Your task to perform on an android device: turn off improve location accuracy Image 0: 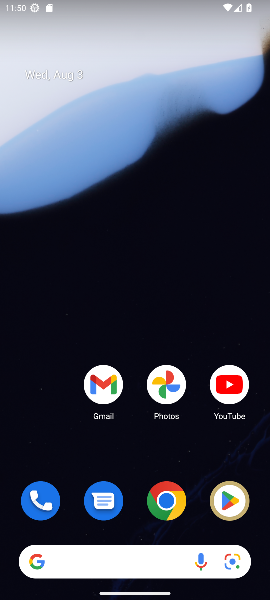
Step 0: drag from (112, 447) to (109, 0)
Your task to perform on an android device: turn off improve location accuracy Image 1: 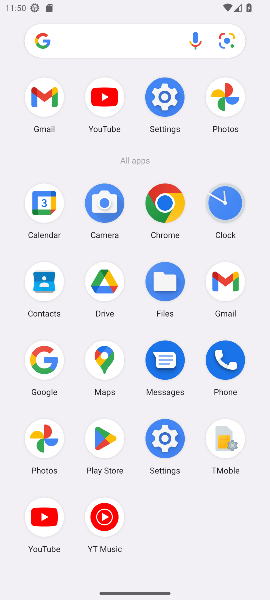
Step 1: click (170, 102)
Your task to perform on an android device: turn off improve location accuracy Image 2: 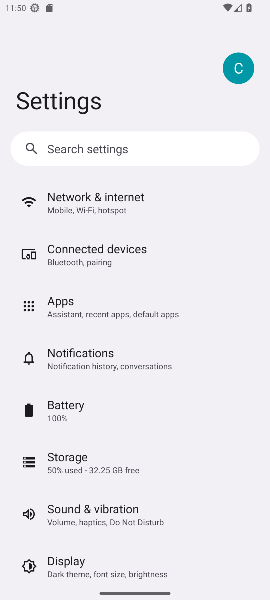
Step 2: drag from (102, 532) to (84, 249)
Your task to perform on an android device: turn off improve location accuracy Image 3: 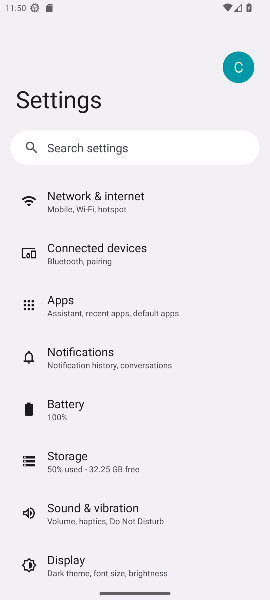
Step 3: drag from (113, 540) to (80, 173)
Your task to perform on an android device: turn off improve location accuracy Image 4: 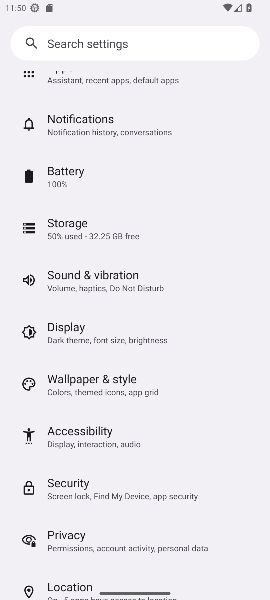
Step 4: click (45, 584)
Your task to perform on an android device: turn off improve location accuracy Image 5: 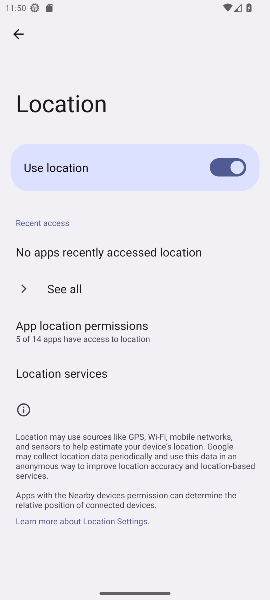
Step 5: click (50, 366)
Your task to perform on an android device: turn off improve location accuracy Image 6: 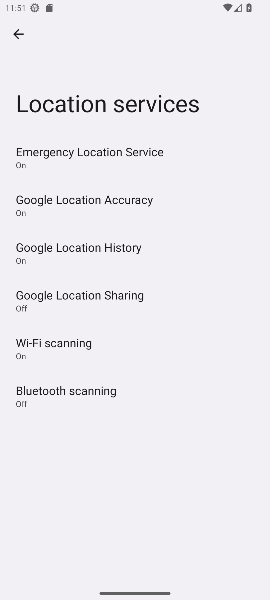
Step 6: click (146, 196)
Your task to perform on an android device: turn off improve location accuracy Image 7: 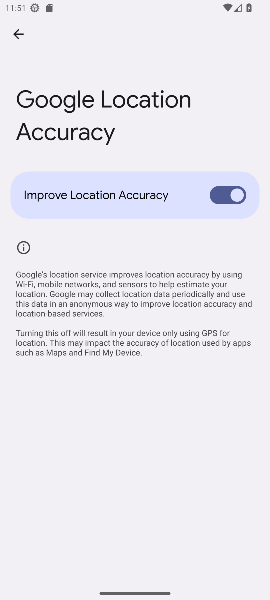
Step 7: click (232, 193)
Your task to perform on an android device: turn off improve location accuracy Image 8: 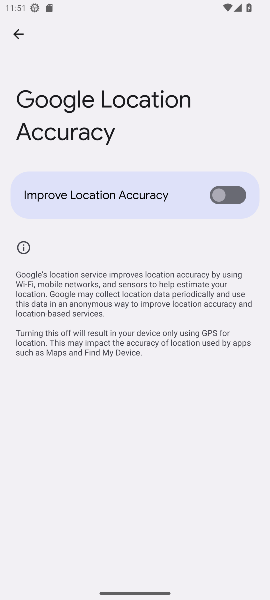
Step 8: task complete